Your task to perform on an android device: Open battery settings Image 0: 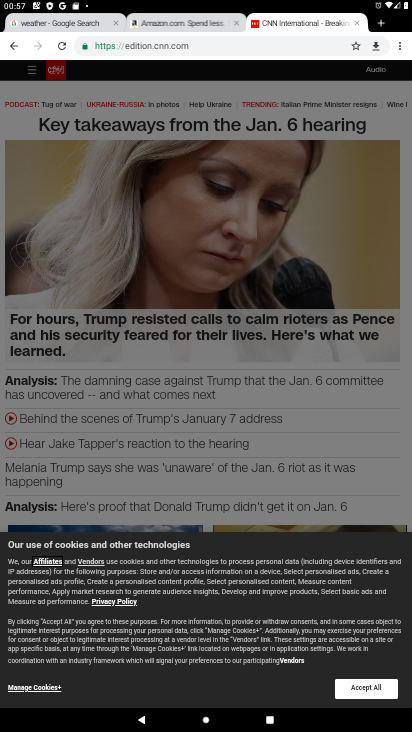
Step 0: press home button
Your task to perform on an android device: Open battery settings Image 1: 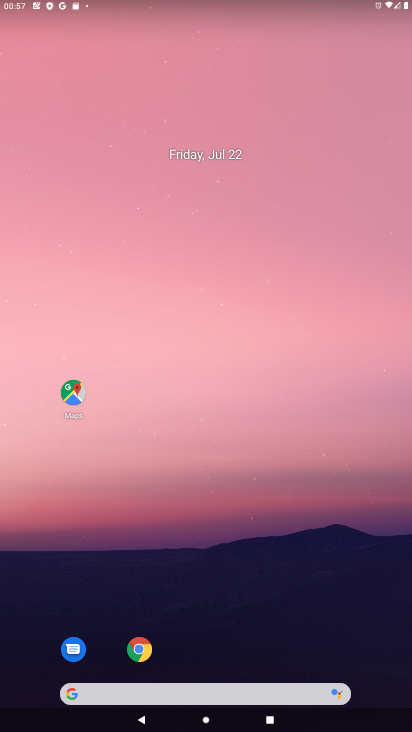
Step 1: drag from (247, 559) to (265, 163)
Your task to perform on an android device: Open battery settings Image 2: 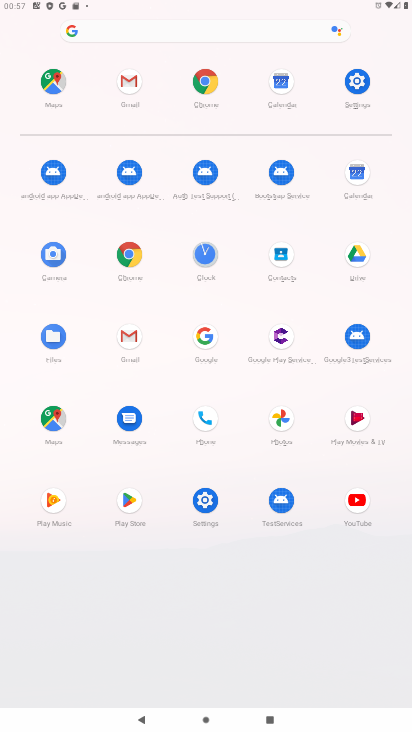
Step 2: click (354, 85)
Your task to perform on an android device: Open battery settings Image 3: 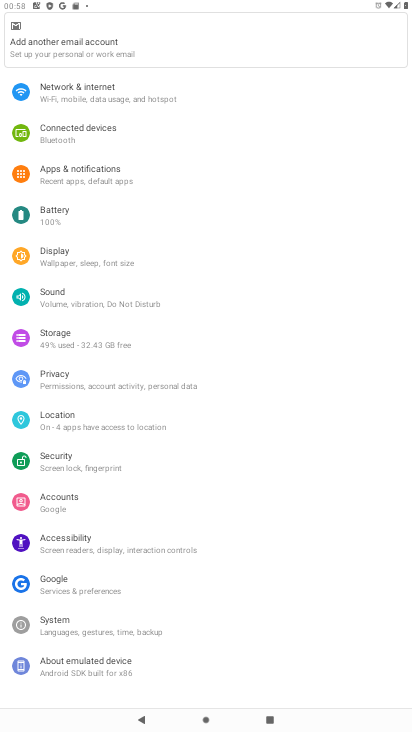
Step 3: click (70, 217)
Your task to perform on an android device: Open battery settings Image 4: 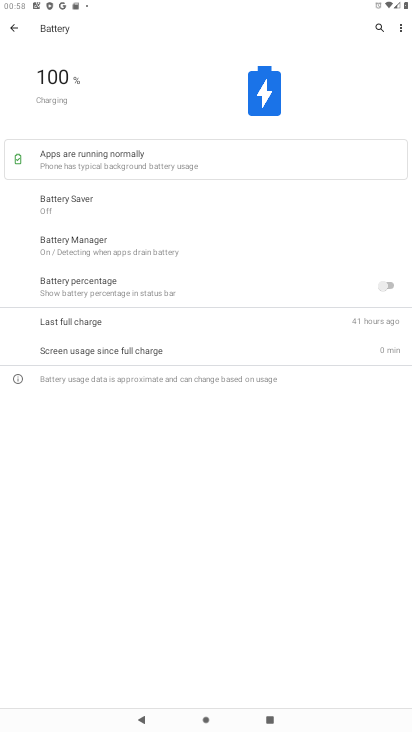
Step 4: task complete